Your task to perform on an android device: install app "PUBG MOBILE" Image 0: 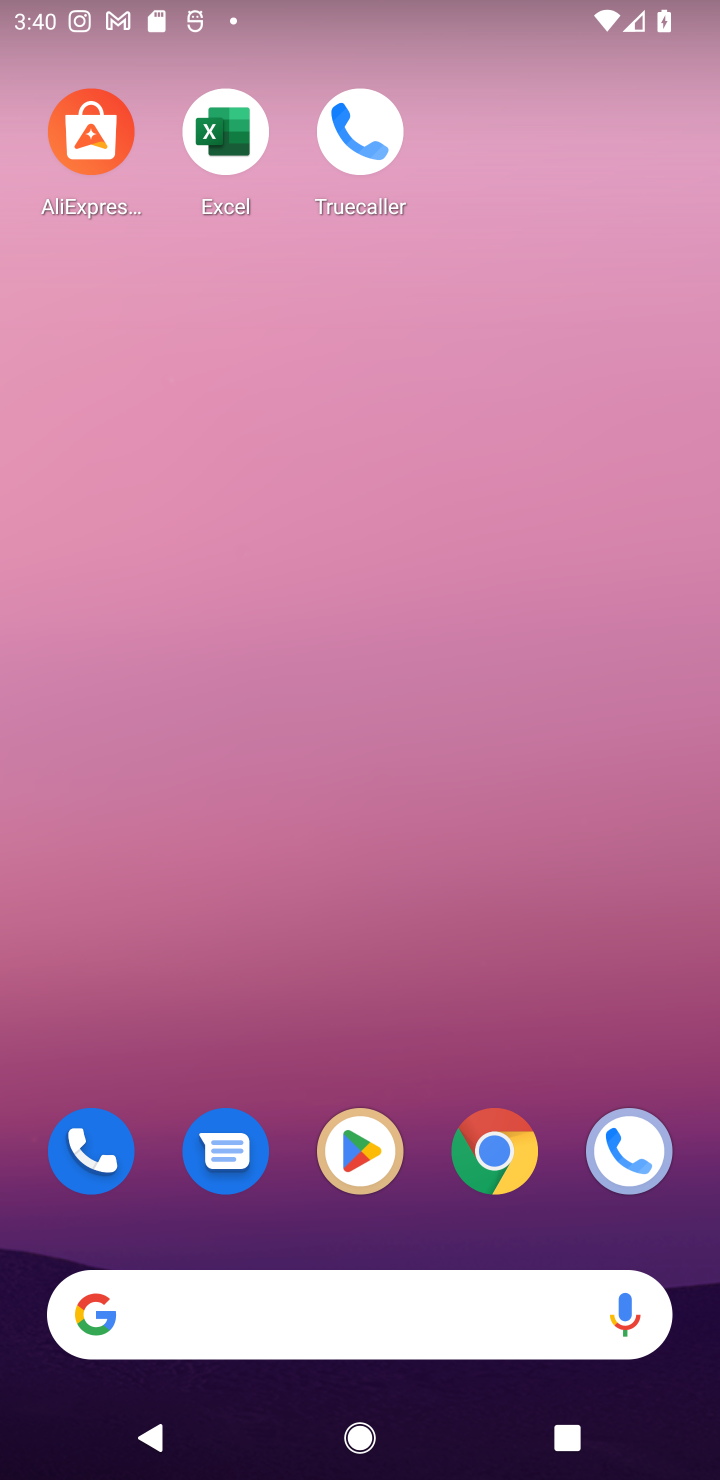
Step 0: press home button
Your task to perform on an android device: install app "PUBG MOBILE" Image 1: 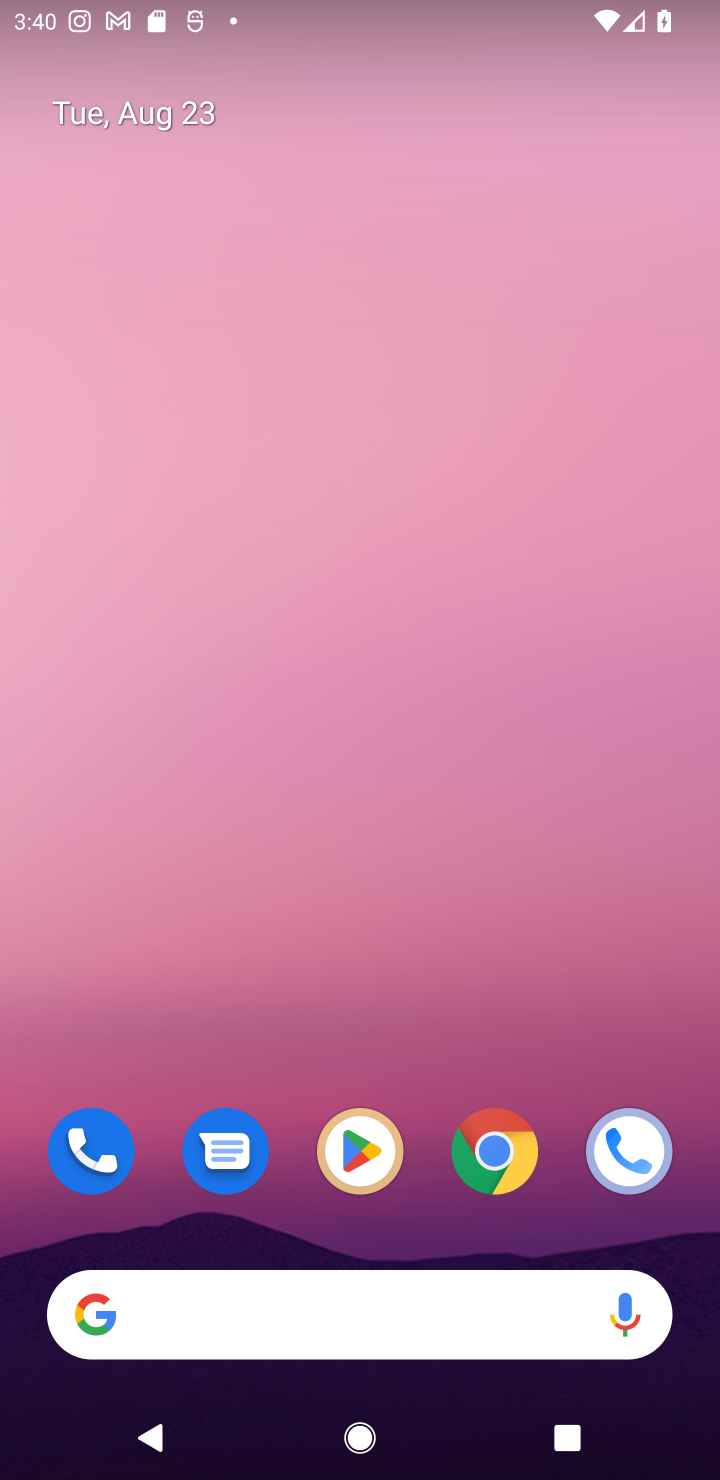
Step 1: click (359, 1143)
Your task to perform on an android device: install app "PUBG MOBILE" Image 2: 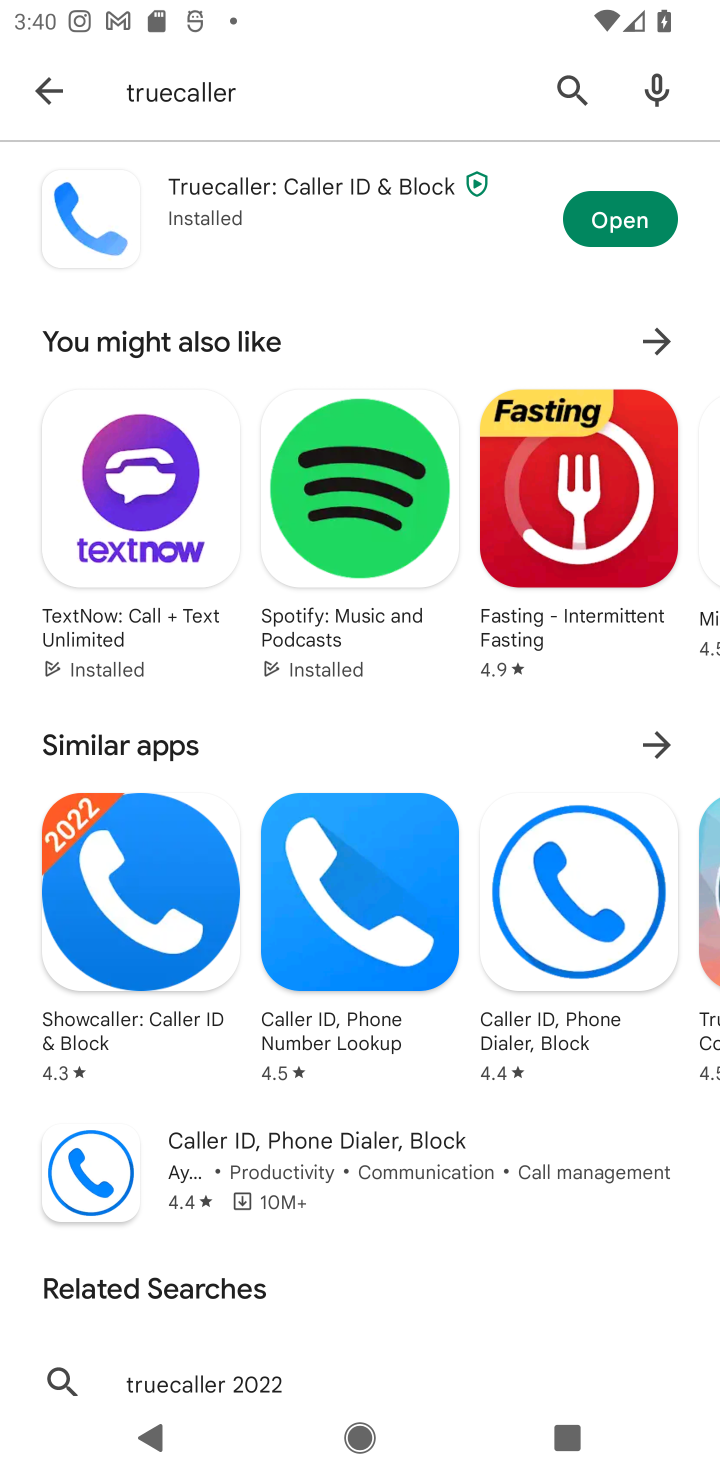
Step 2: click (552, 94)
Your task to perform on an android device: install app "PUBG MOBILE" Image 3: 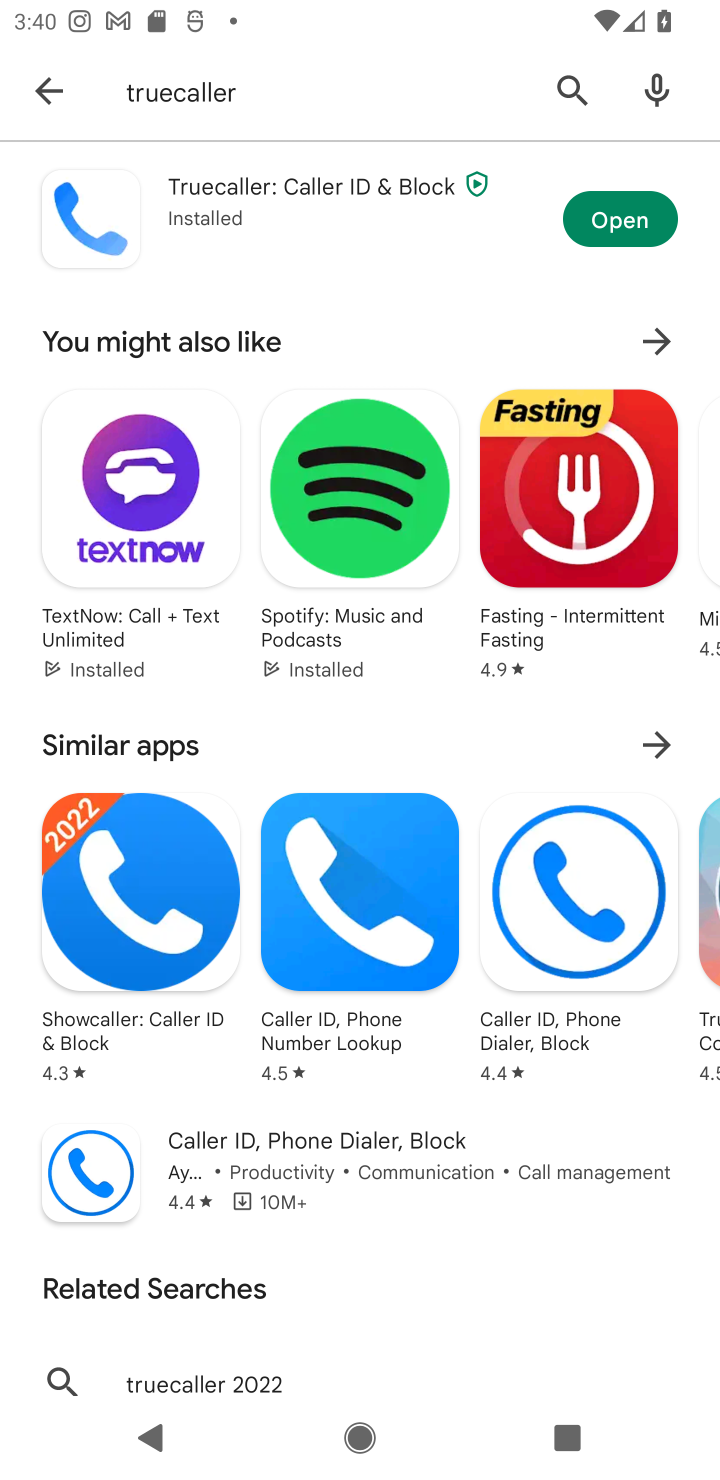
Step 3: click (564, 75)
Your task to perform on an android device: install app "PUBG MOBILE" Image 4: 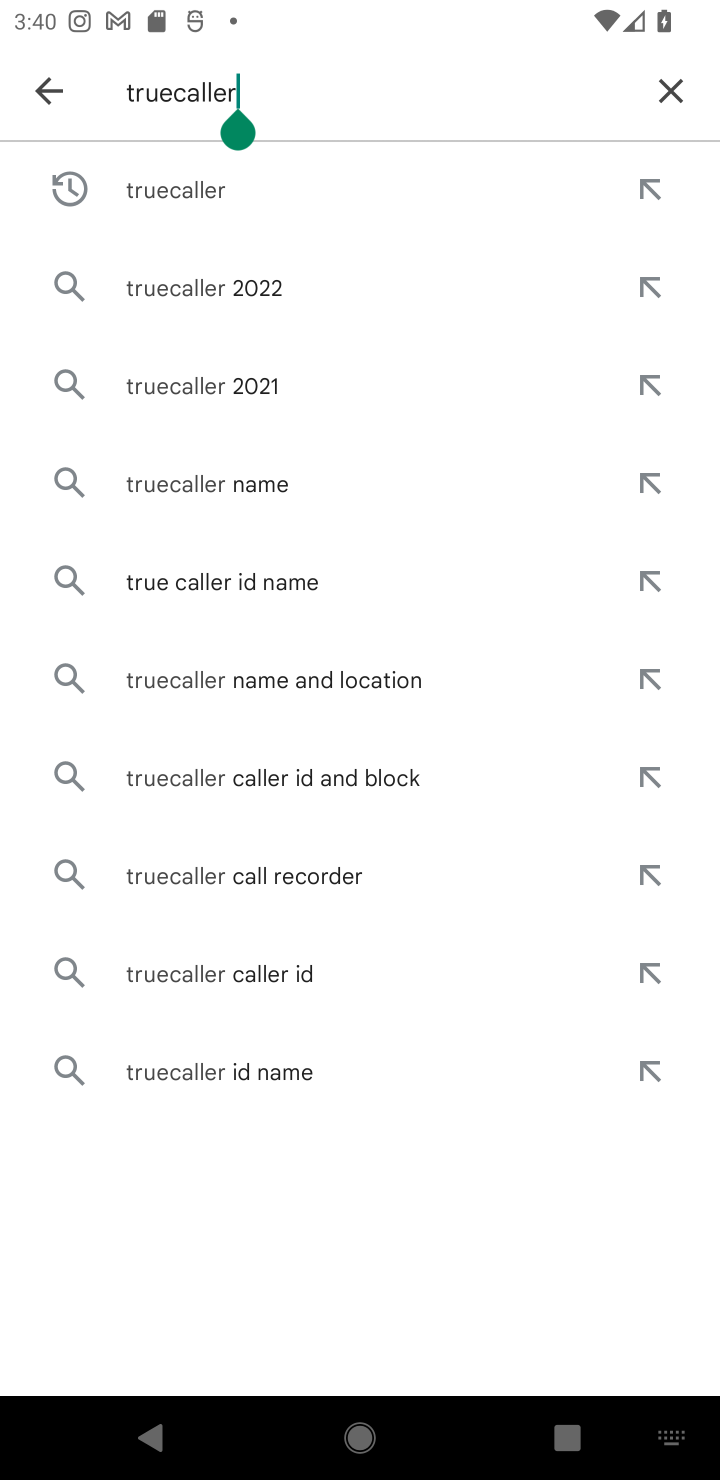
Step 4: click (672, 89)
Your task to perform on an android device: install app "PUBG MOBILE" Image 5: 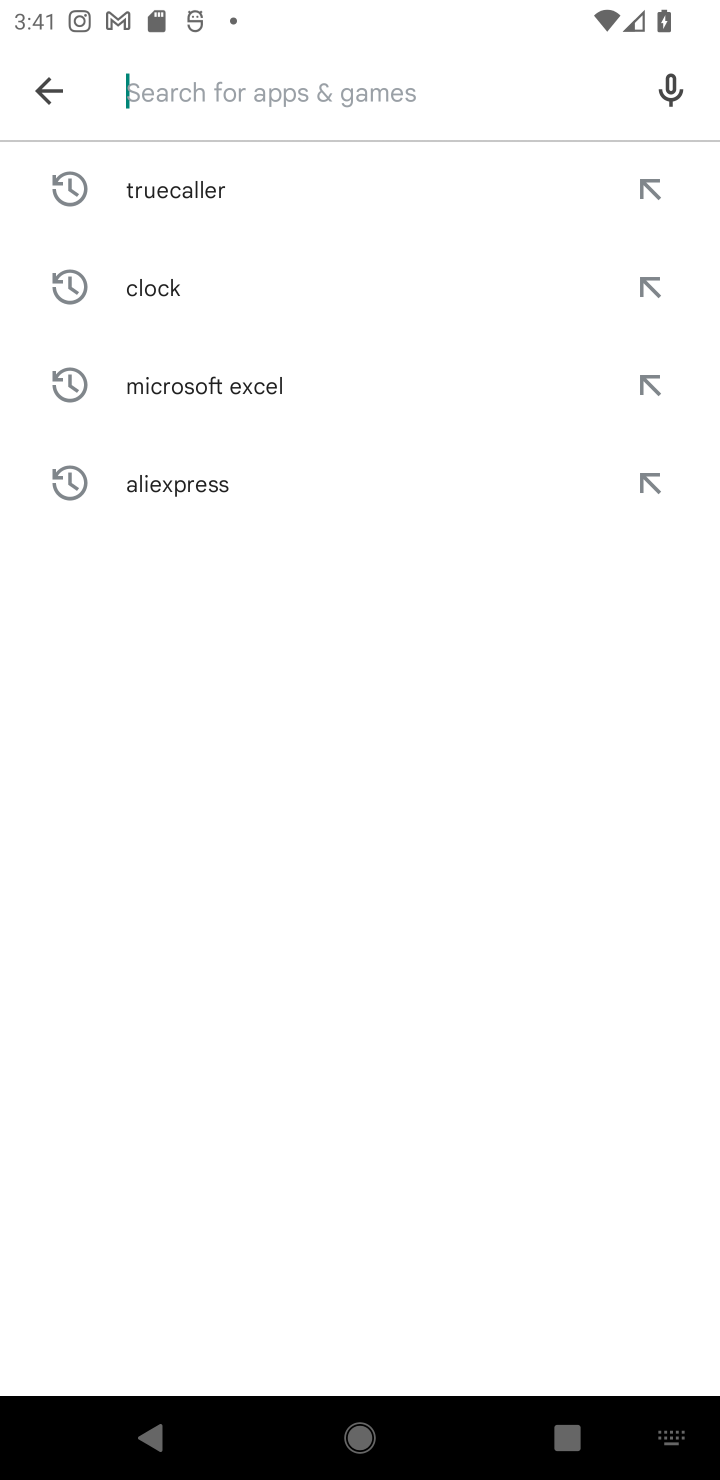
Step 5: type "PUBG MOBILE"
Your task to perform on an android device: install app "PUBG MOBILE" Image 6: 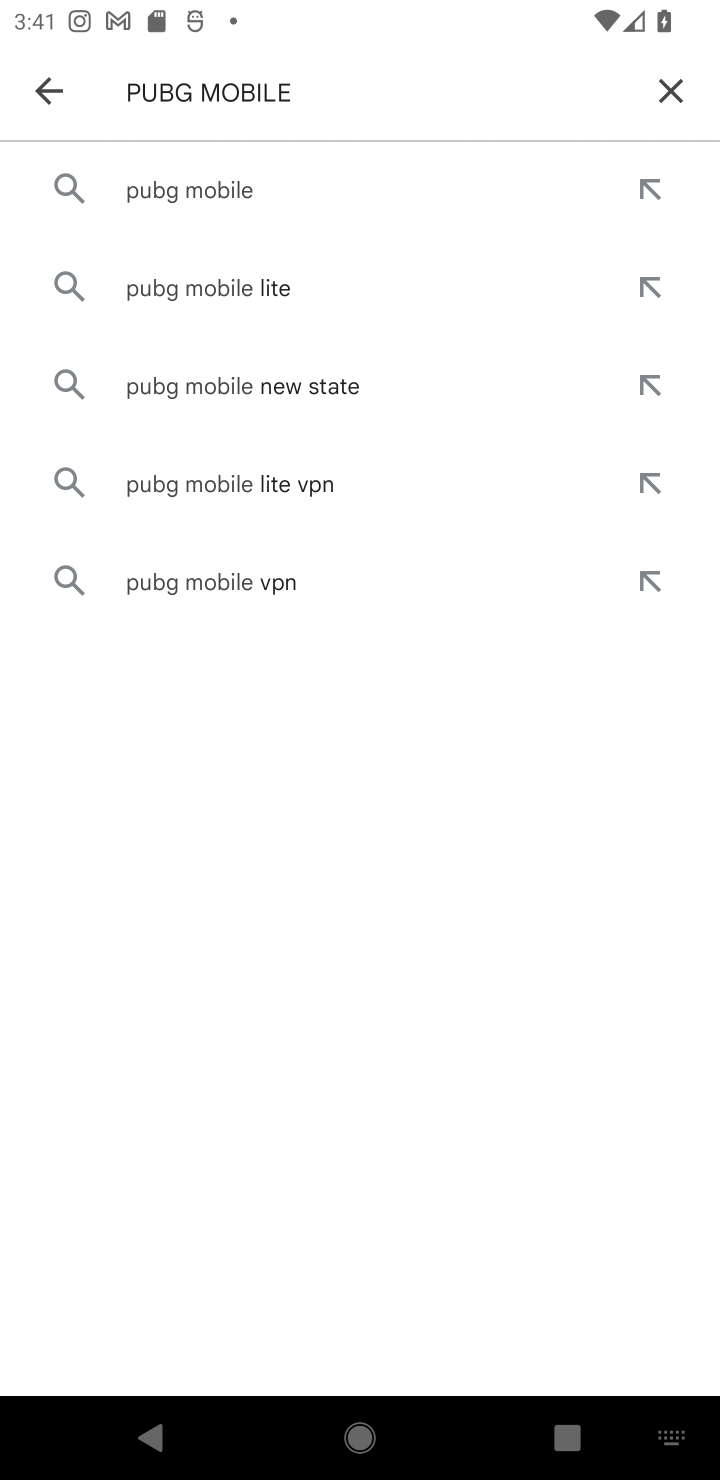
Step 6: click (216, 196)
Your task to perform on an android device: install app "PUBG MOBILE" Image 7: 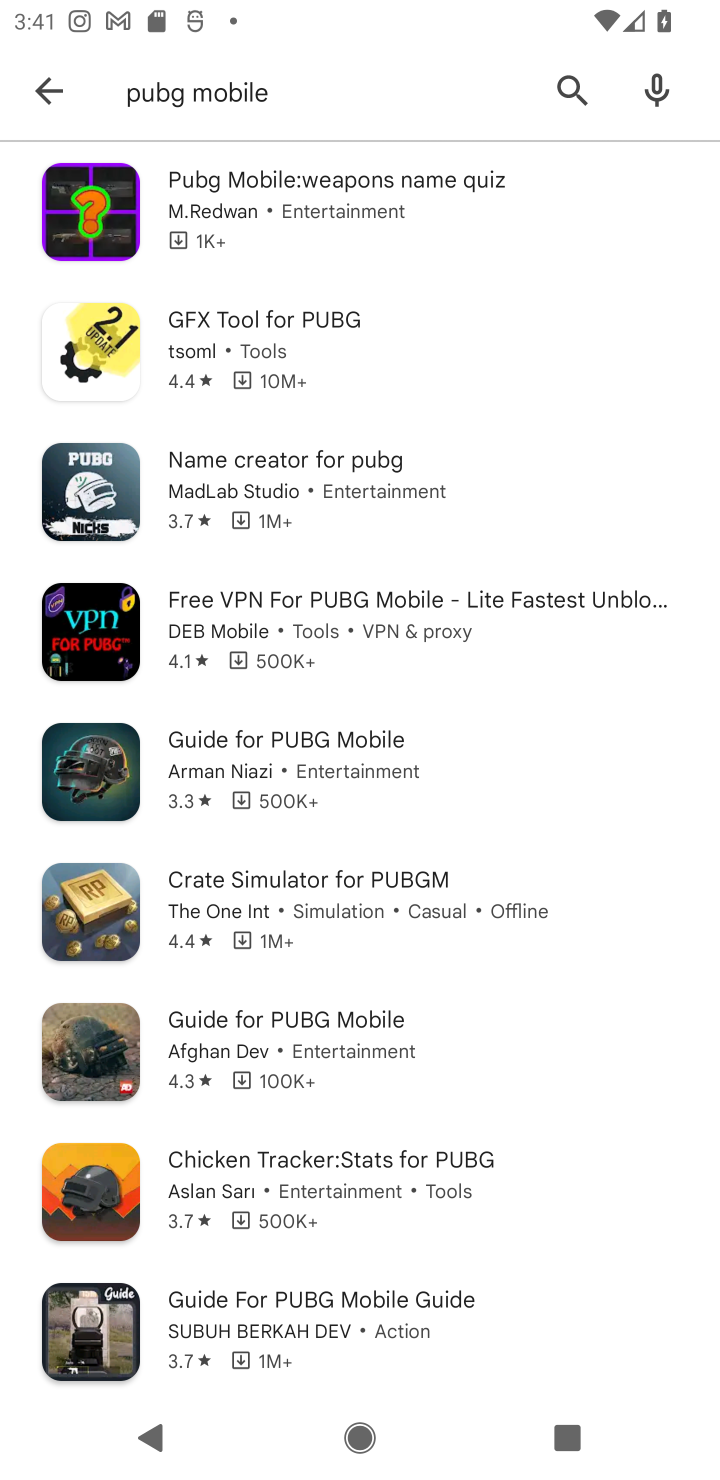
Step 7: click (301, 219)
Your task to perform on an android device: install app "PUBG MOBILE" Image 8: 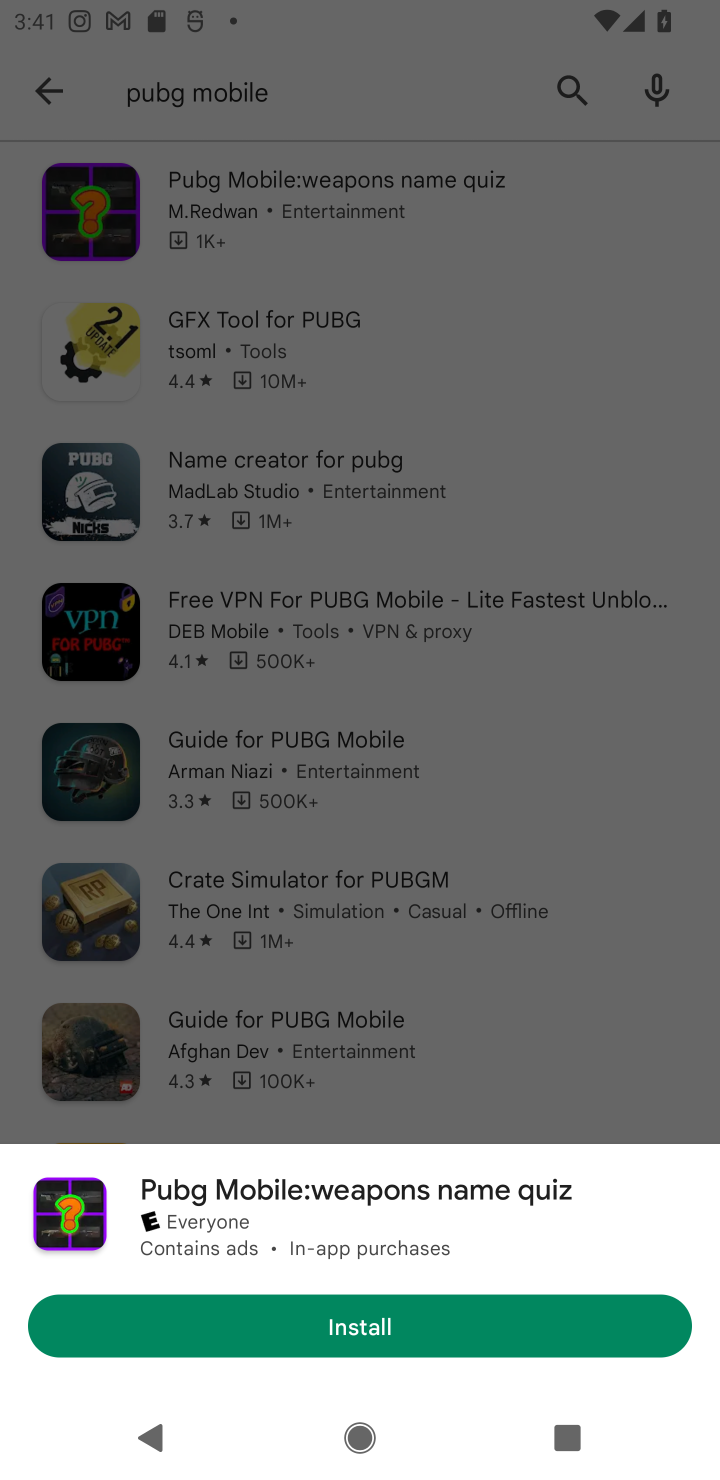
Step 8: click (392, 1332)
Your task to perform on an android device: install app "PUBG MOBILE" Image 9: 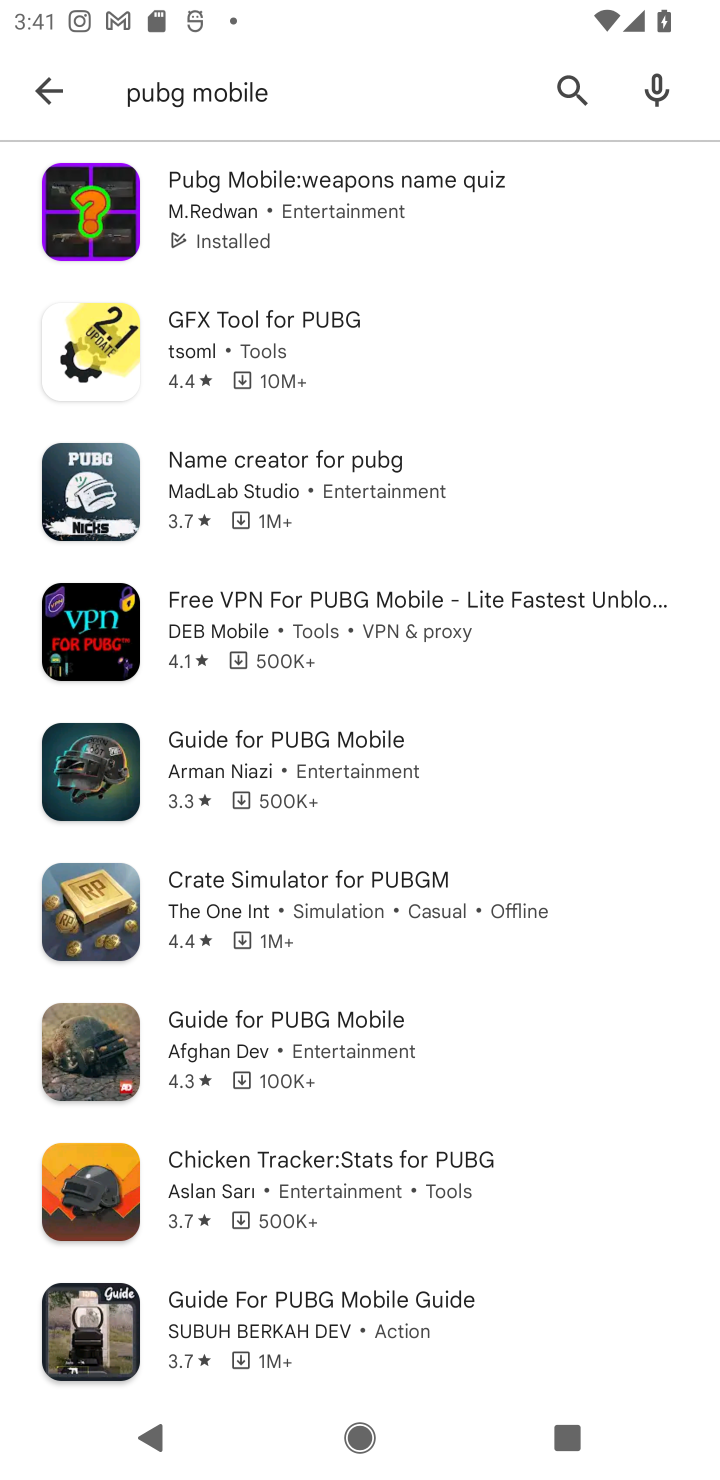
Step 9: click (298, 212)
Your task to perform on an android device: install app "PUBG MOBILE" Image 10: 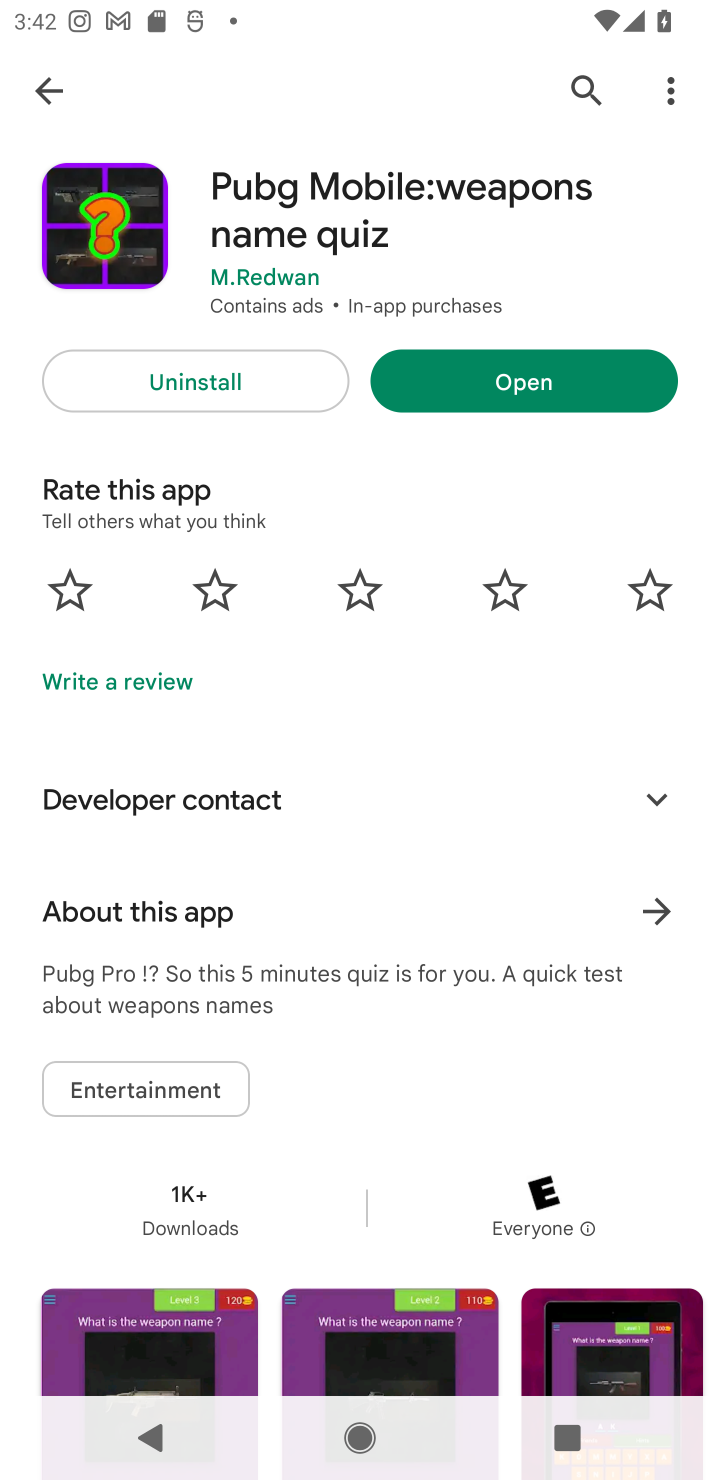
Step 10: task complete